Your task to perform on an android device: Open location settings Image 0: 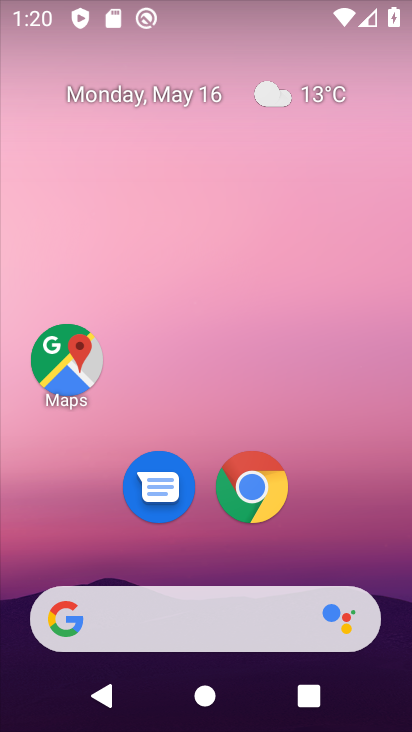
Step 0: click (270, 138)
Your task to perform on an android device: Open location settings Image 1: 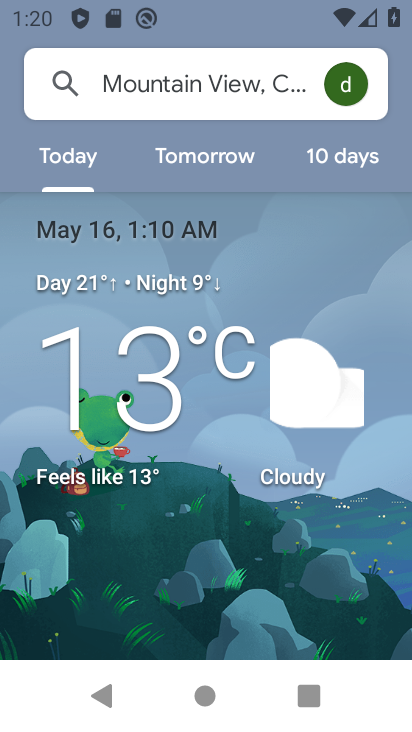
Step 1: press home button
Your task to perform on an android device: Open location settings Image 2: 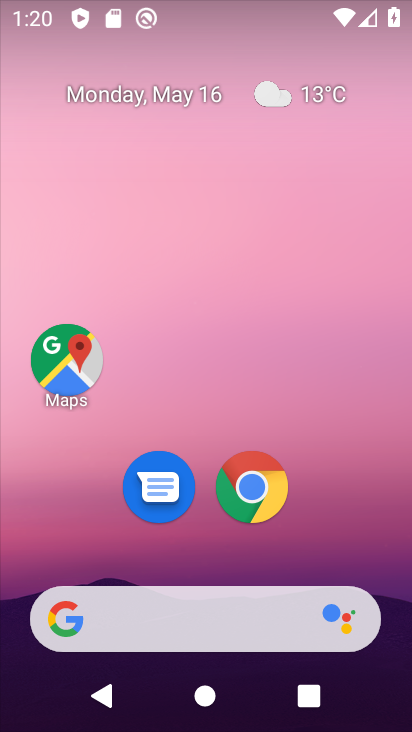
Step 2: drag from (229, 557) to (197, 175)
Your task to perform on an android device: Open location settings Image 3: 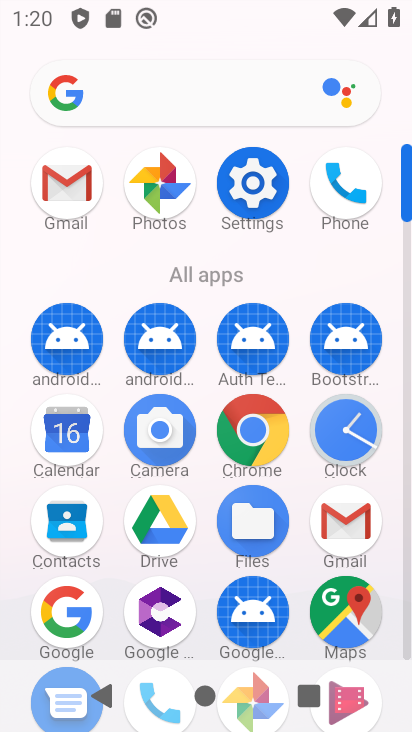
Step 3: click (239, 200)
Your task to perform on an android device: Open location settings Image 4: 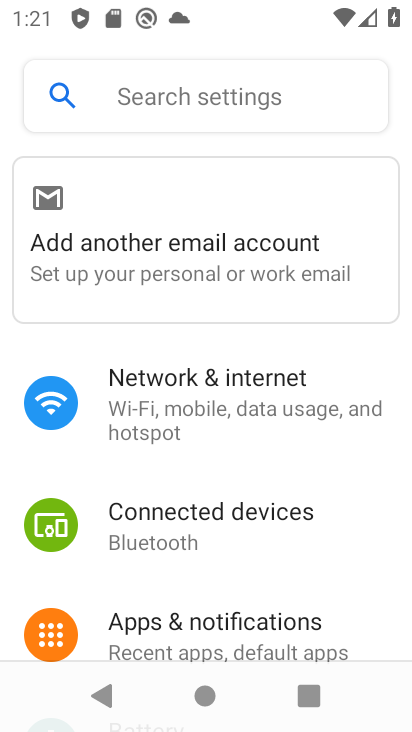
Step 4: drag from (110, 574) to (244, 56)
Your task to perform on an android device: Open location settings Image 5: 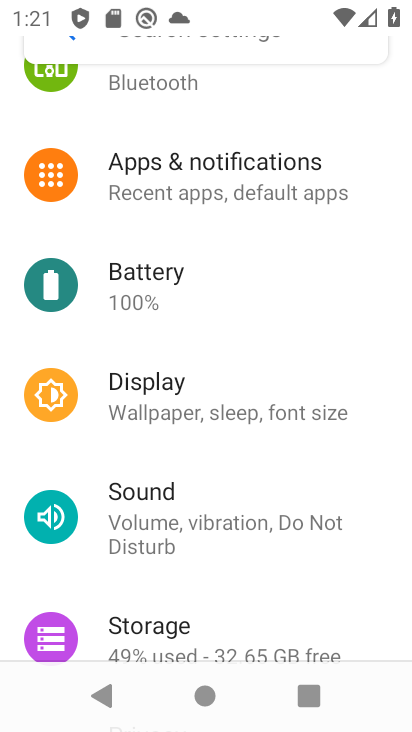
Step 5: drag from (159, 623) to (116, 321)
Your task to perform on an android device: Open location settings Image 6: 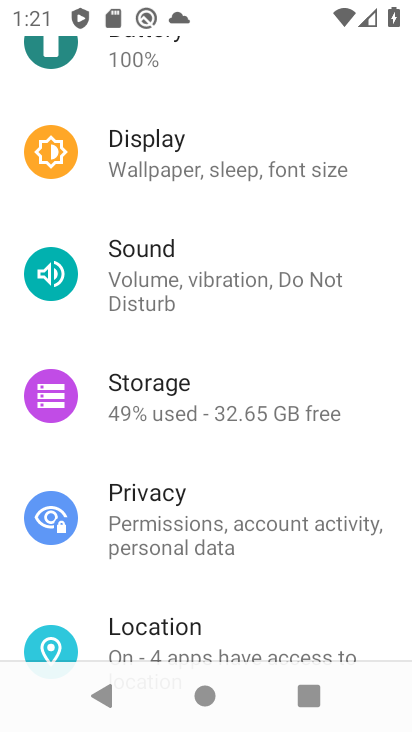
Step 6: click (169, 656)
Your task to perform on an android device: Open location settings Image 7: 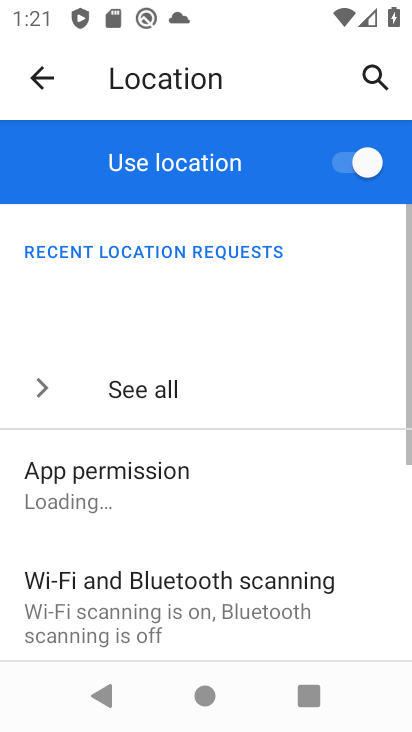
Step 7: click (147, 651)
Your task to perform on an android device: Open location settings Image 8: 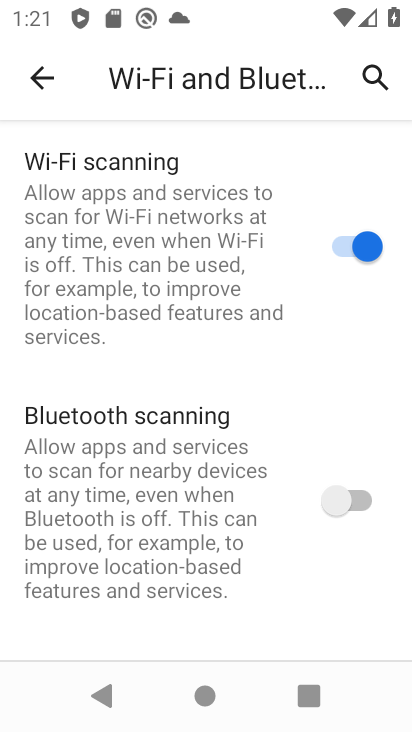
Step 8: task complete